Your task to perform on an android device: Search for seafood restaurants on Google Maps Image 0: 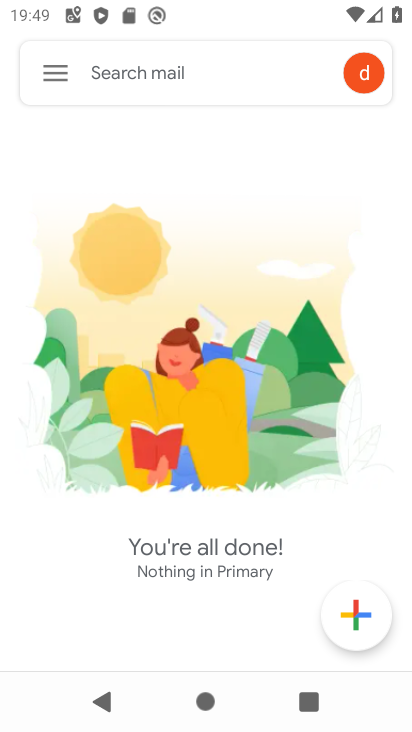
Step 0: press home button
Your task to perform on an android device: Search for seafood restaurants on Google Maps Image 1: 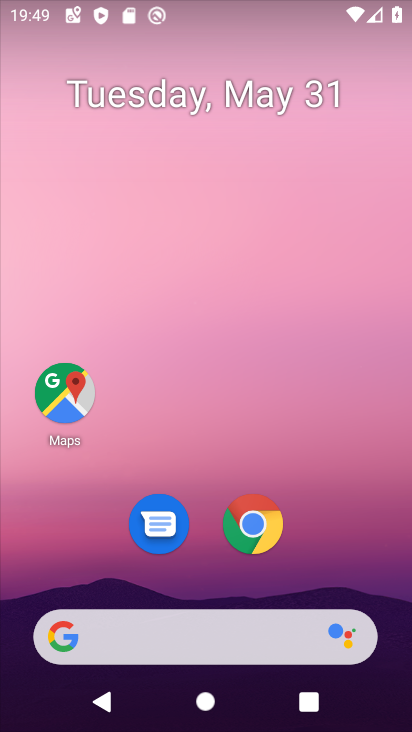
Step 1: click (49, 392)
Your task to perform on an android device: Search for seafood restaurants on Google Maps Image 2: 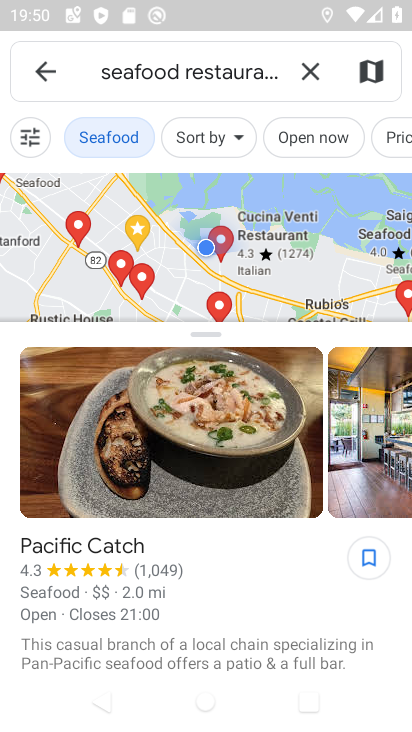
Step 2: task complete